Your task to perform on an android device: set an alarm Image 0: 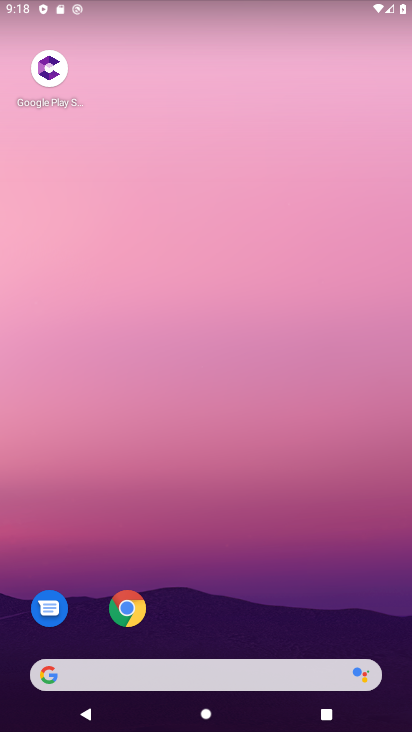
Step 0: drag from (283, 531) to (172, 0)
Your task to perform on an android device: set an alarm Image 1: 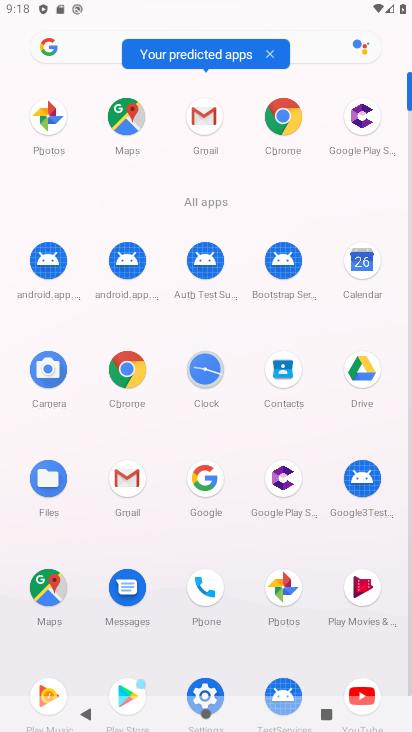
Step 1: click (205, 375)
Your task to perform on an android device: set an alarm Image 2: 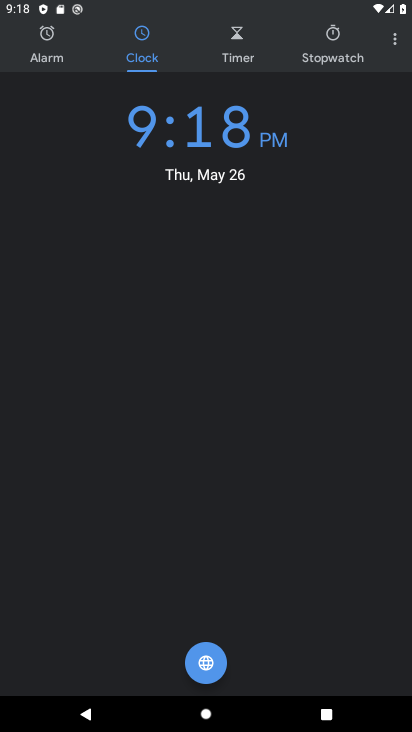
Step 2: click (51, 50)
Your task to perform on an android device: set an alarm Image 3: 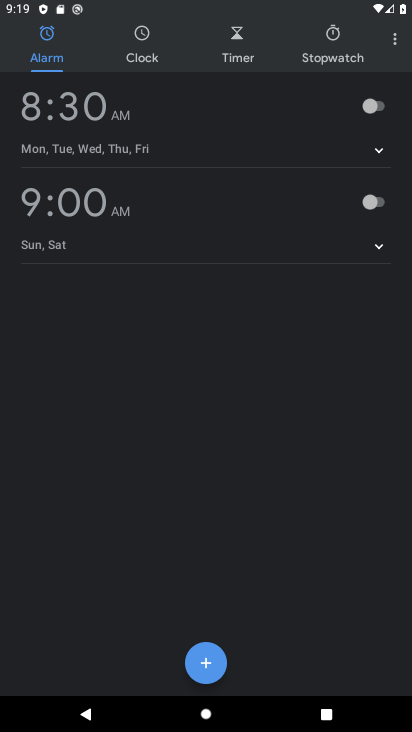
Step 3: click (375, 106)
Your task to perform on an android device: set an alarm Image 4: 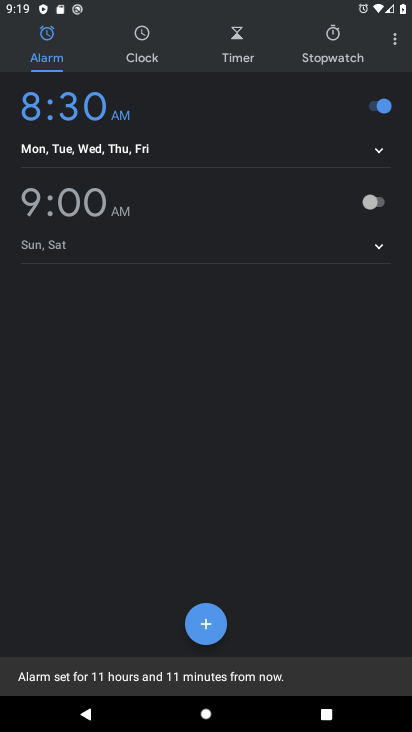
Step 4: task complete